Your task to perform on an android device: Go to internet settings Image 0: 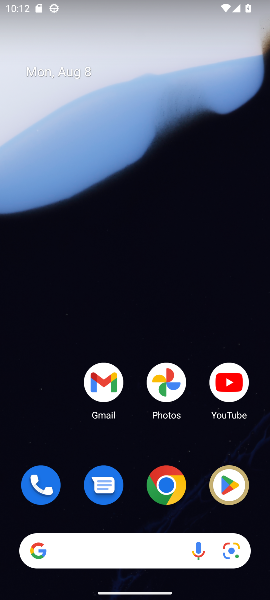
Step 0: drag from (194, 461) to (203, 50)
Your task to perform on an android device: Go to internet settings Image 1: 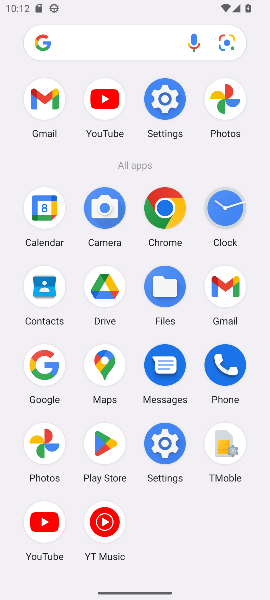
Step 1: click (161, 451)
Your task to perform on an android device: Go to internet settings Image 2: 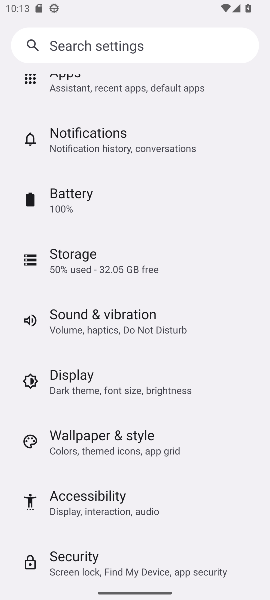
Step 2: drag from (145, 144) to (94, 507)
Your task to perform on an android device: Go to internet settings Image 3: 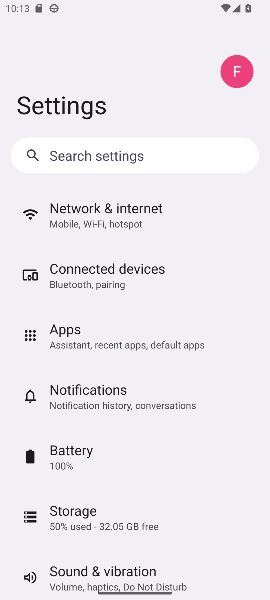
Step 3: click (118, 202)
Your task to perform on an android device: Go to internet settings Image 4: 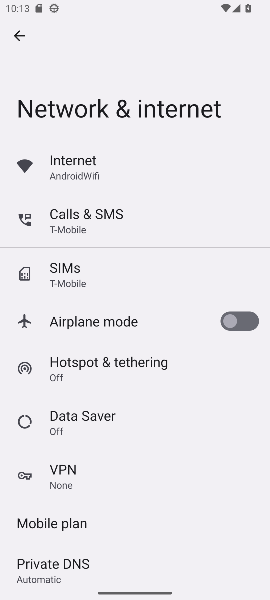
Step 4: click (66, 161)
Your task to perform on an android device: Go to internet settings Image 5: 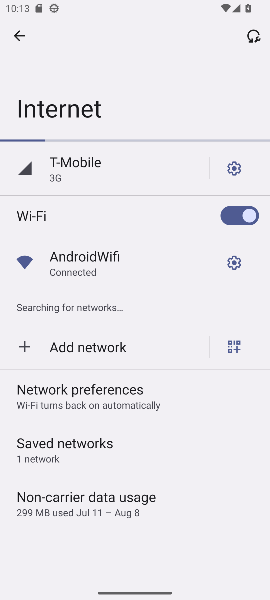
Step 5: task complete